Your task to perform on an android device: Open Wikipedia Image 0: 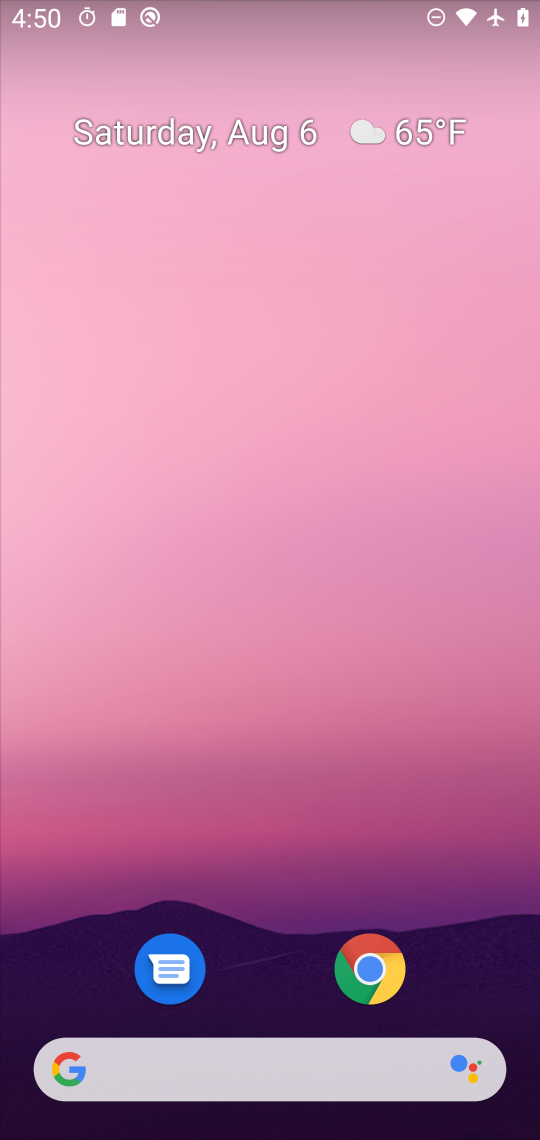
Step 0: press home button
Your task to perform on an android device: Open Wikipedia Image 1: 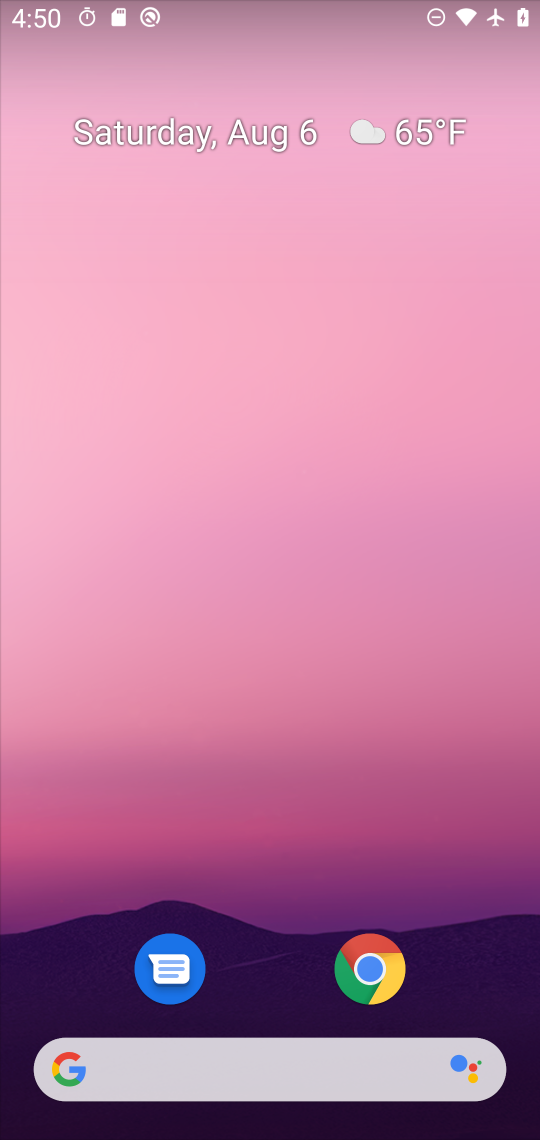
Step 1: click (68, 1071)
Your task to perform on an android device: Open Wikipedia Image 2: 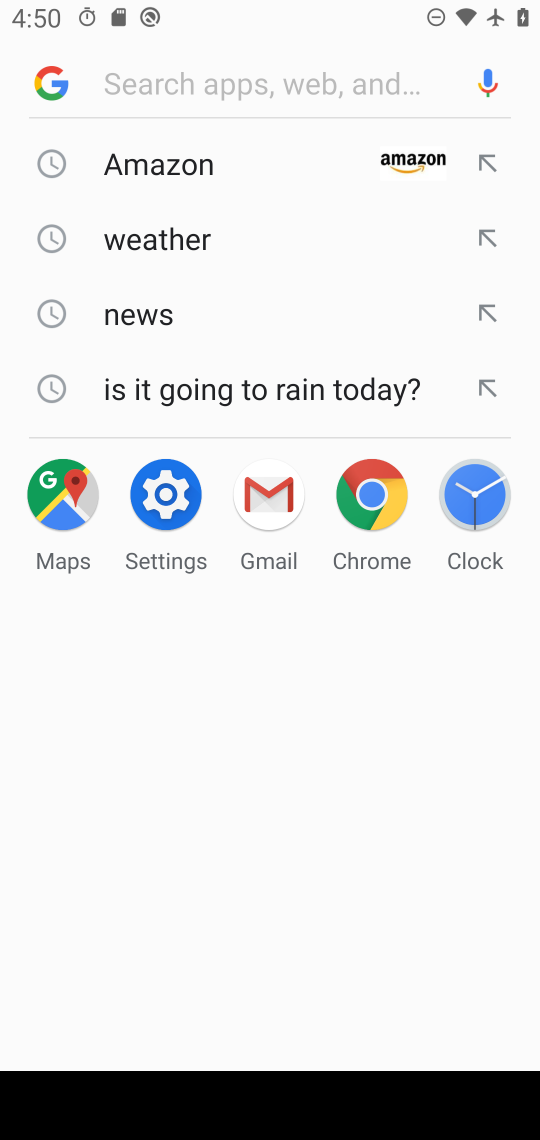
Step 2: type "Wikipedia"
Your task to perform on an android device: Open Wikipedia Image 3: 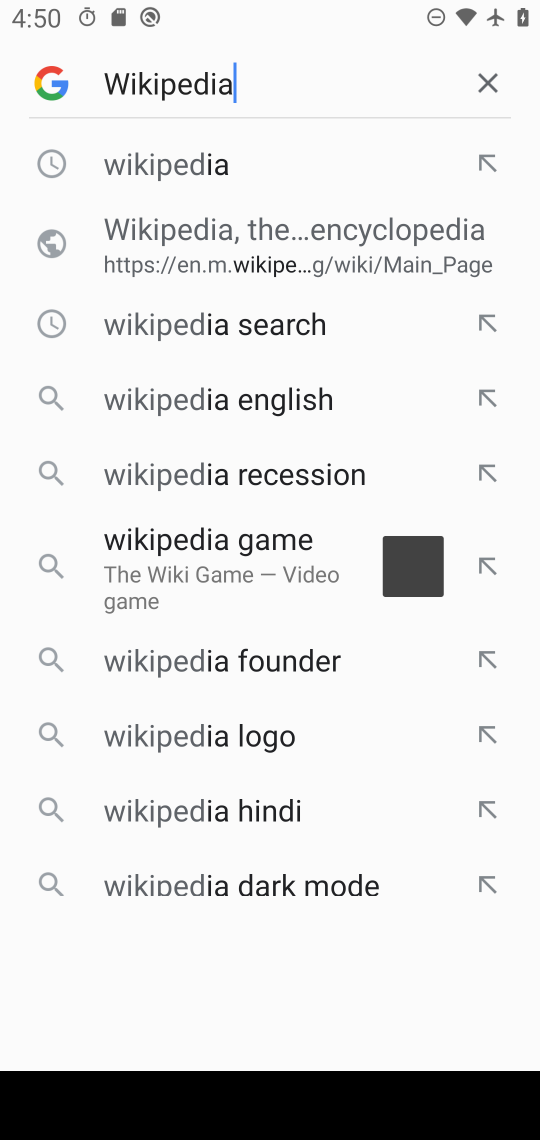
Step 3: press enter
Your task to perform on an android device: Open Wikipedia Image 4: 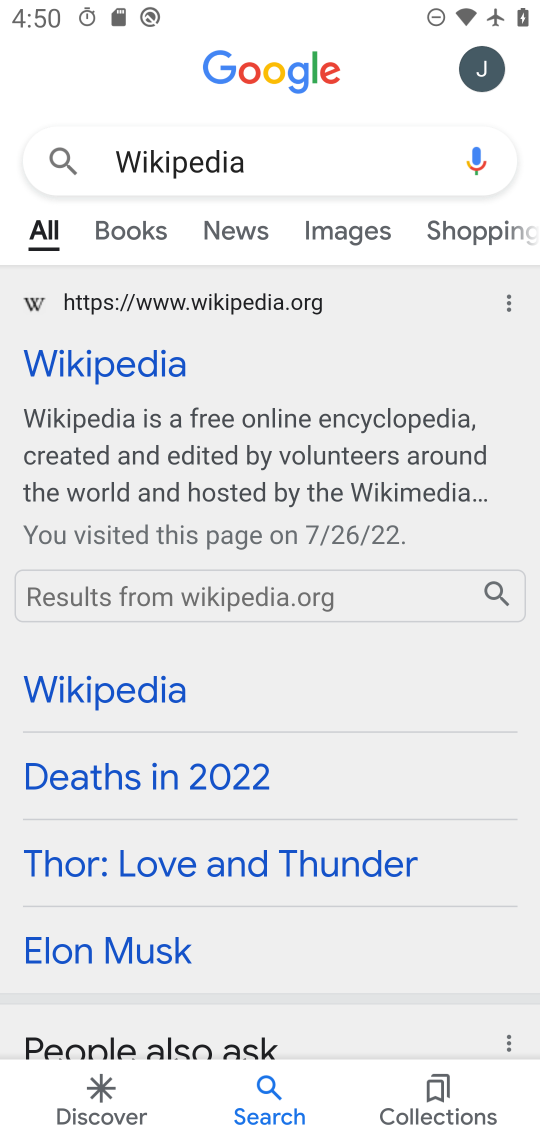
Step 4: click (107, 373)
Your task to perform on an android device: Open Wikipedia Image 5: 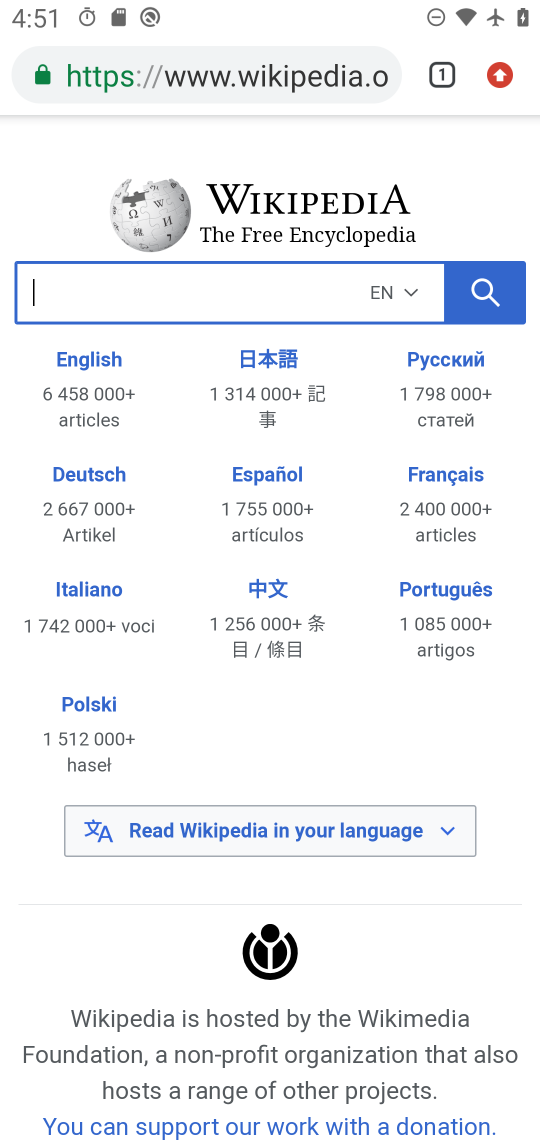
Step 5: task complete